Your task to perform on an android device: Check the settings for the Google Play Movies app Image 0: 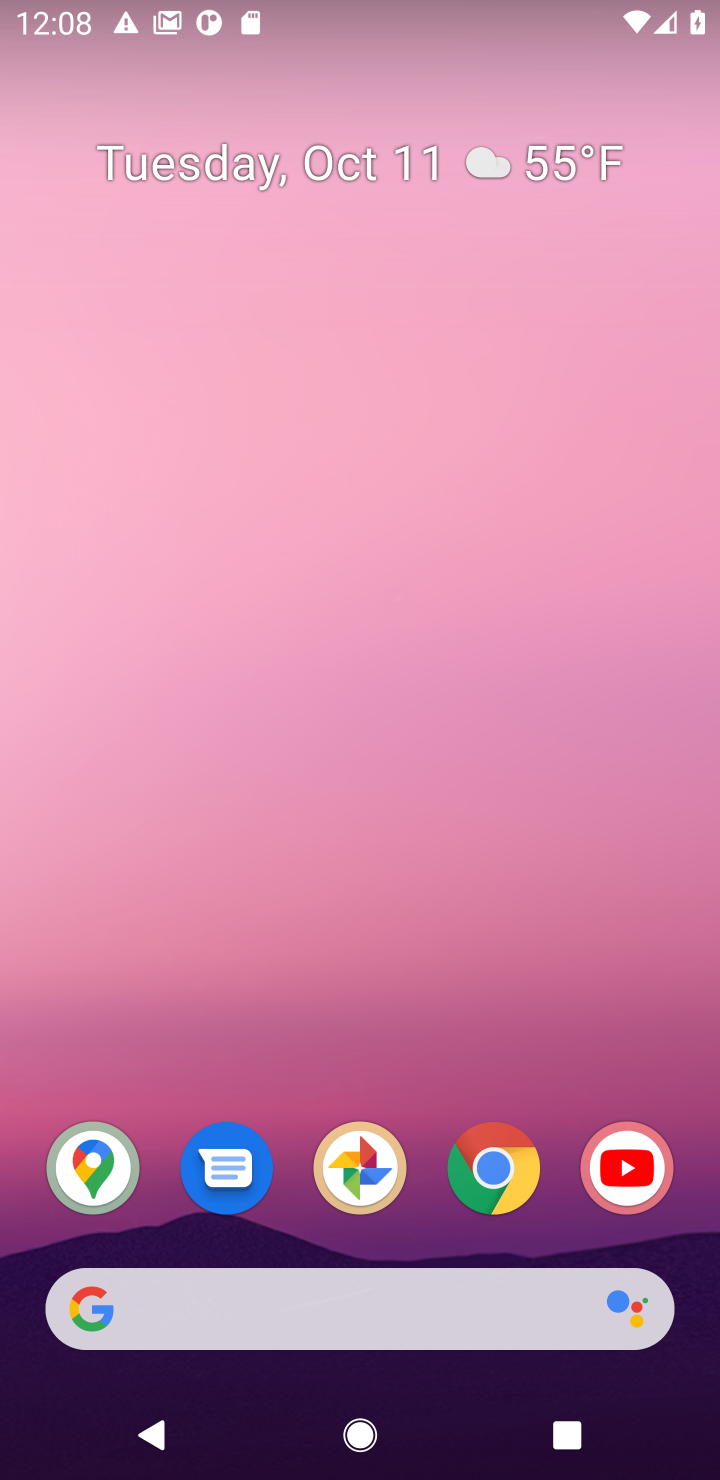
Step 0: drag from (373, 1209) to (390, 603)
Your task to perform on an android device: Check the settings for the Google Play Movies app Image 1: 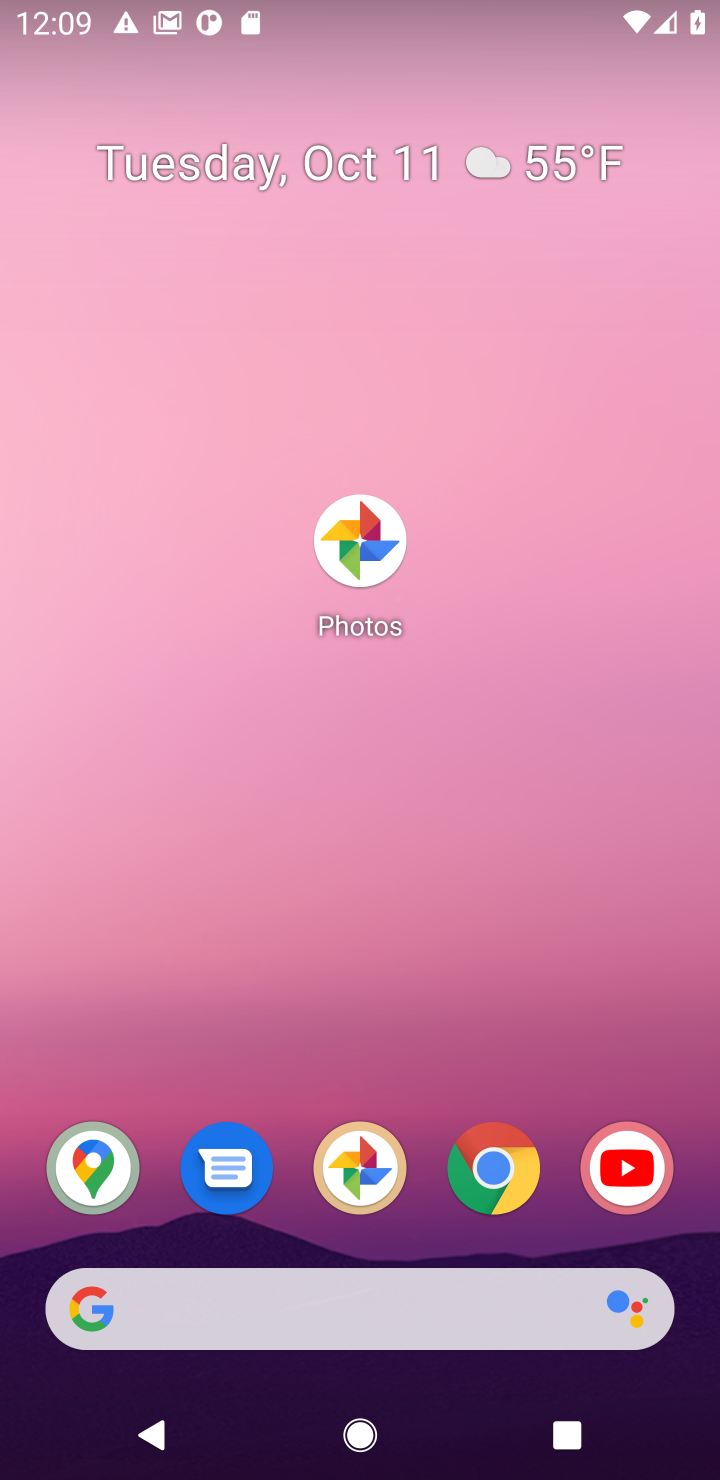
Step 1: drag from (438, 1221) to (526, 219)
Your task to perform on an android device: Check the settings for the Google Play Movies app Image 2: 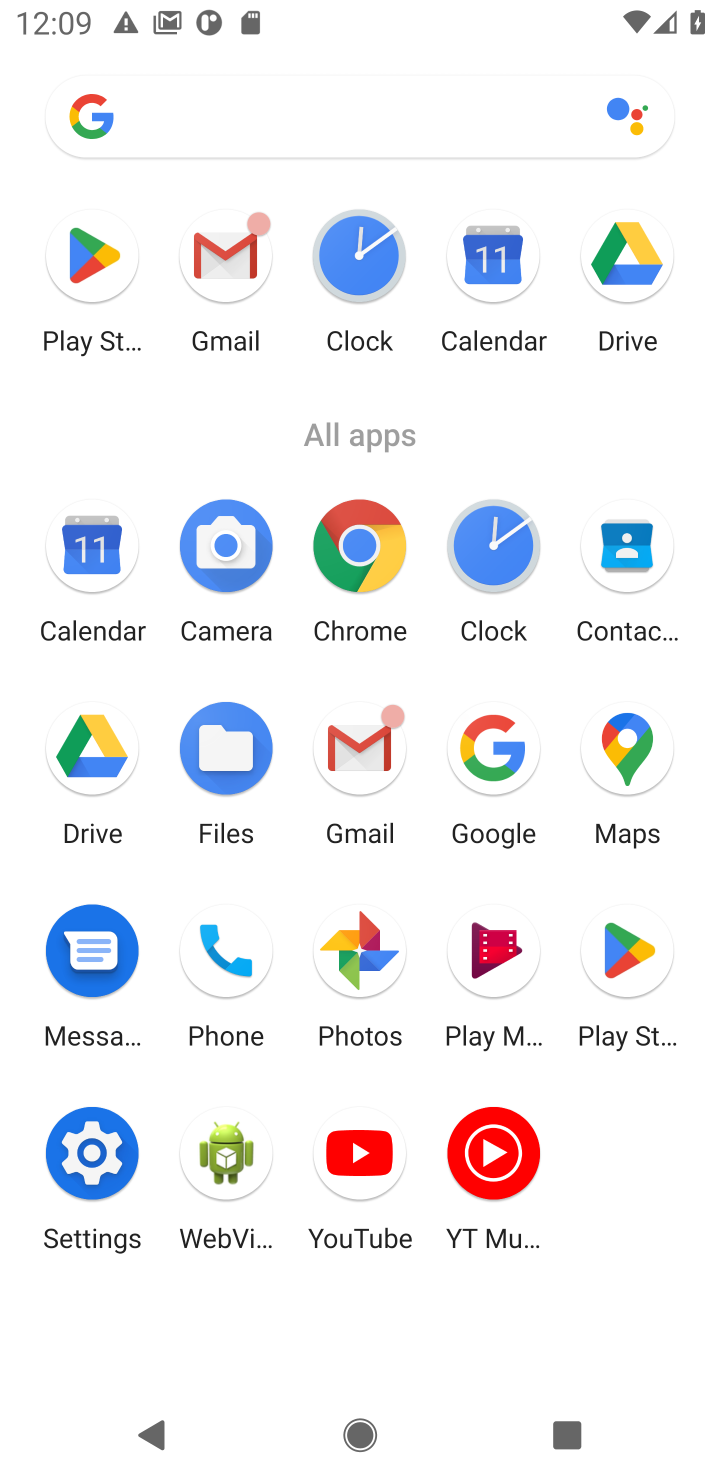
Step 2: click (491, 975)
Your task to perform on an android device: Check the settings for the Google Play Movies app Image 3: 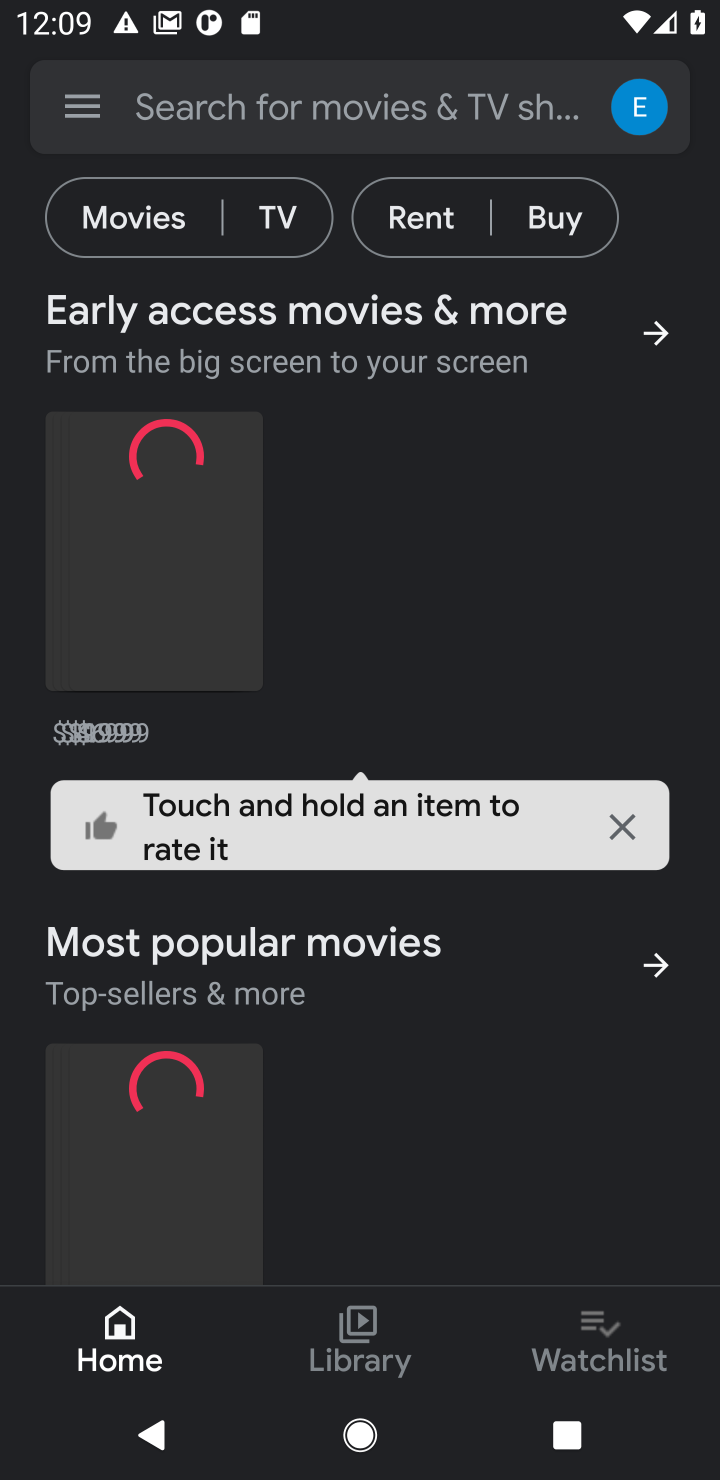
Step 3: click (91, 114)
Your task to perform on an android device: Check the settings for the Google Play Movies app Image 4: 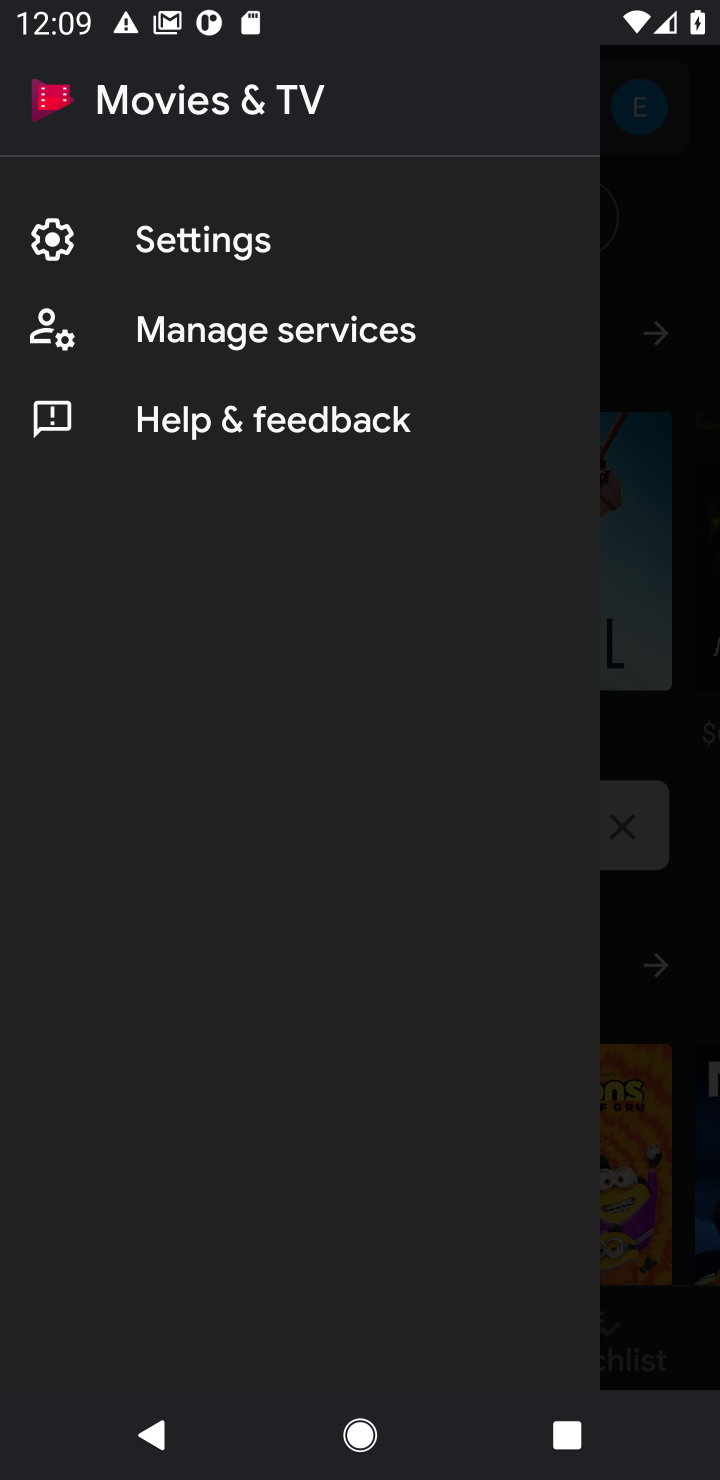
Step 4: click (191, 228)
Your task to perform on an android device: Check the settings for the Google Play Movies app Image 5: 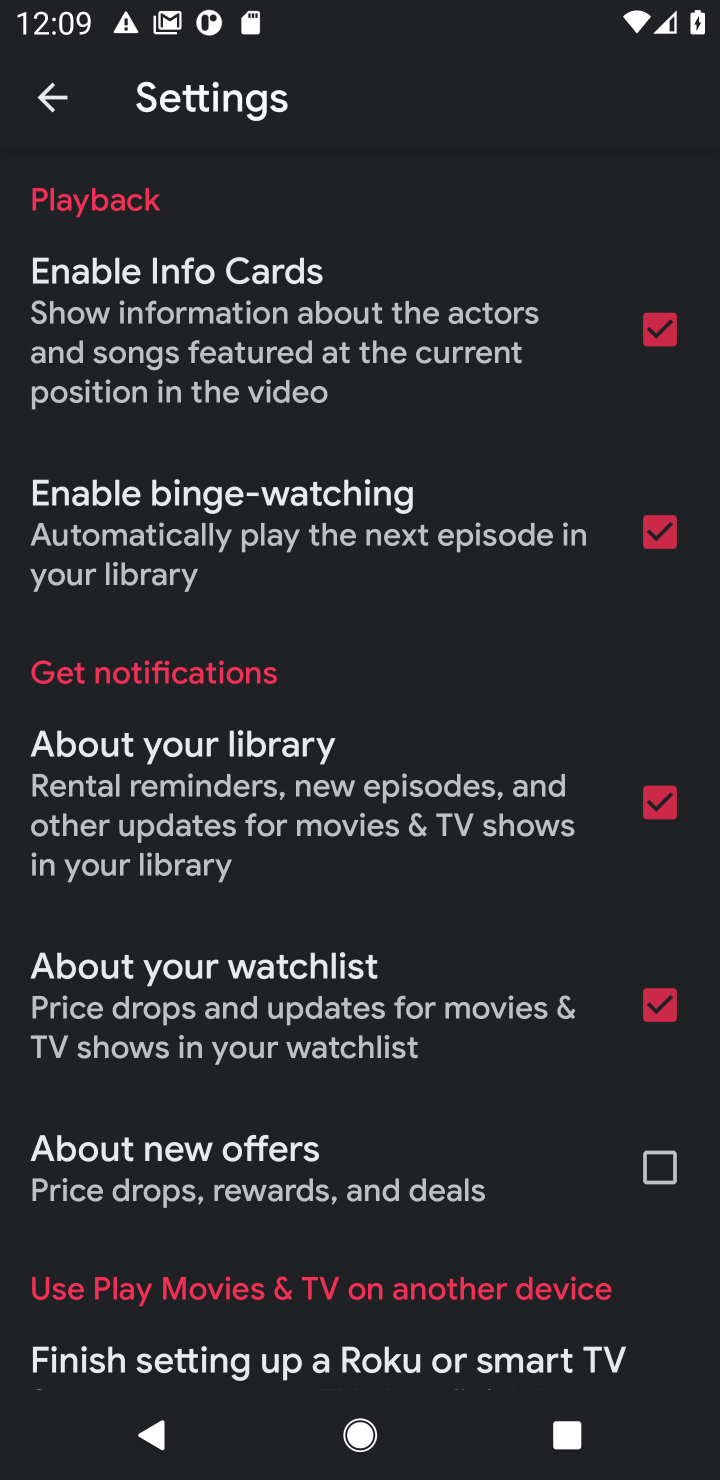
Step 5: task complete